Your task to perform on an android device: toggle sleep mode Image 0: 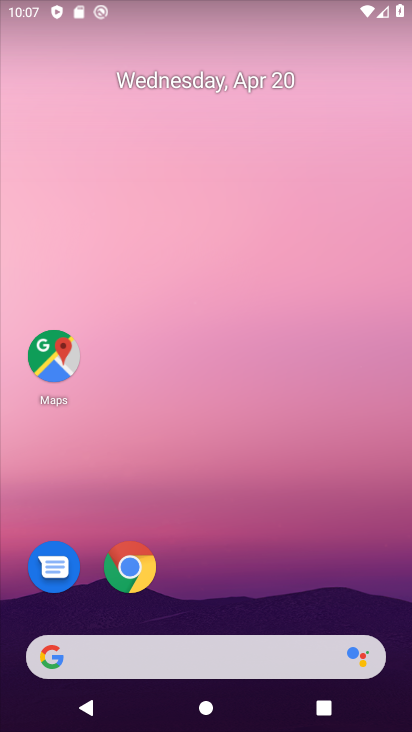
Step 0: drag from (227, 565) to (173, 220)
Your task to perform on an android device: toggle sleep mode Image 1: 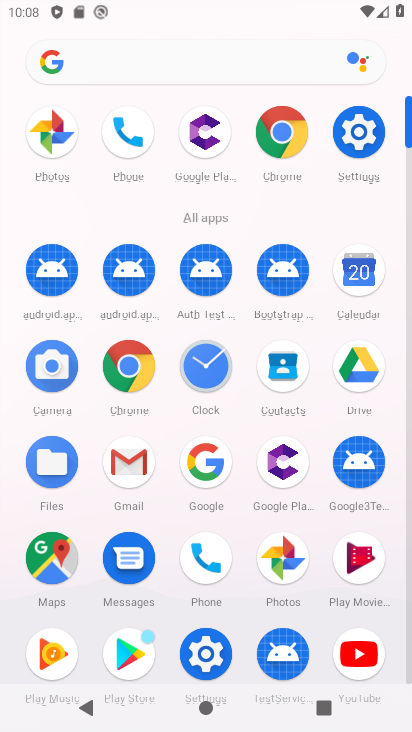
Step 1: click (361, 134)
Your task to perform on an android device: toggle sleep mode Image 2: 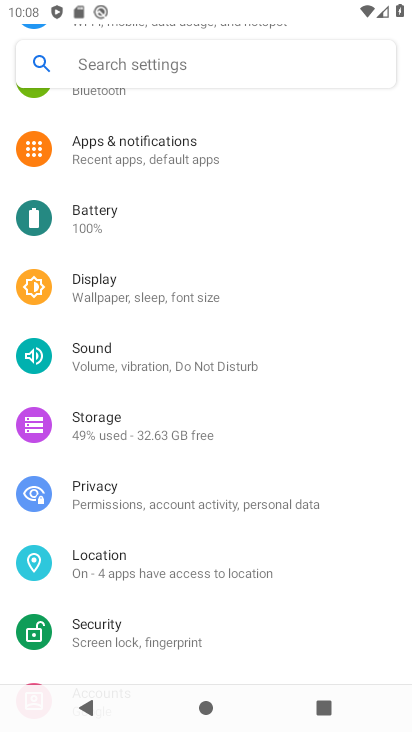
Step 2: click (202, 292)
Your task to perform on an android device: toggle sleep mode Image 3: 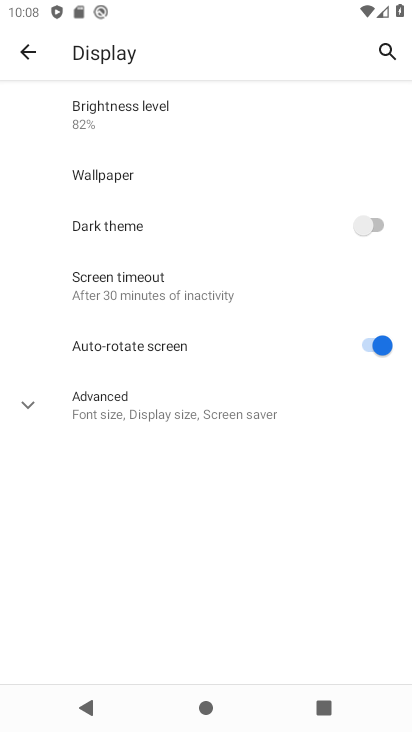
Step 3: click (167, 303)
Your task to perform on an android device: toggle sleep mode Image 4: 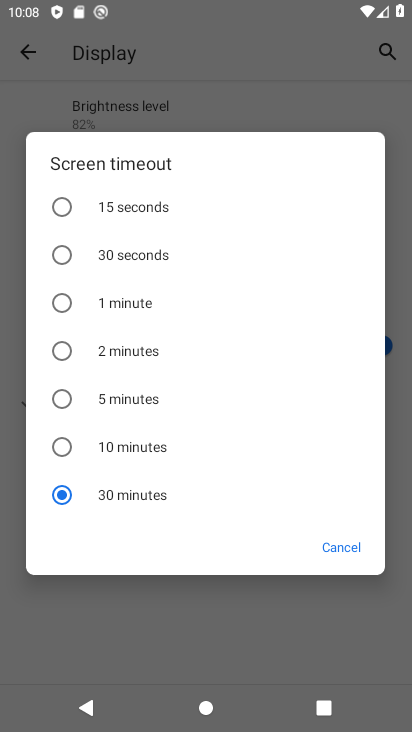
Step 4: drag from (219, 300) to (243, 407)
Your task to perform on an android device: toggle sleep mode Image 5: 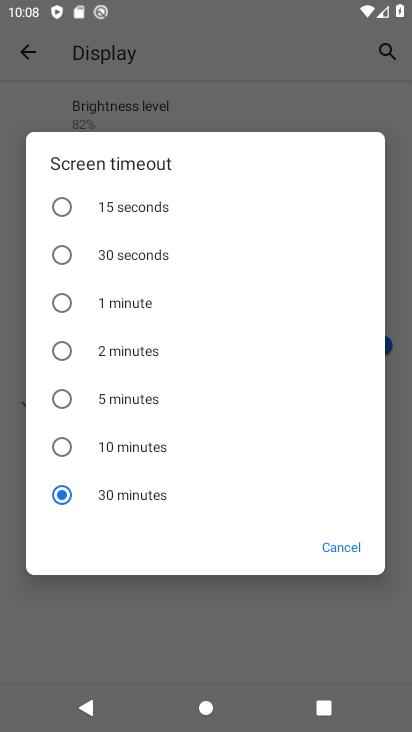
Step 5: click (342, 541)
Your task to perform on an android device: toggle sleep mode Image 6: 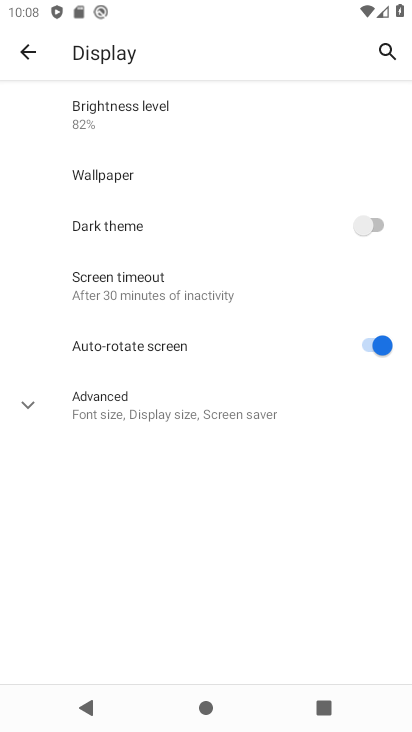
Step 6: task complete